Your task to perform on an android device: What is the news today? Image 0: 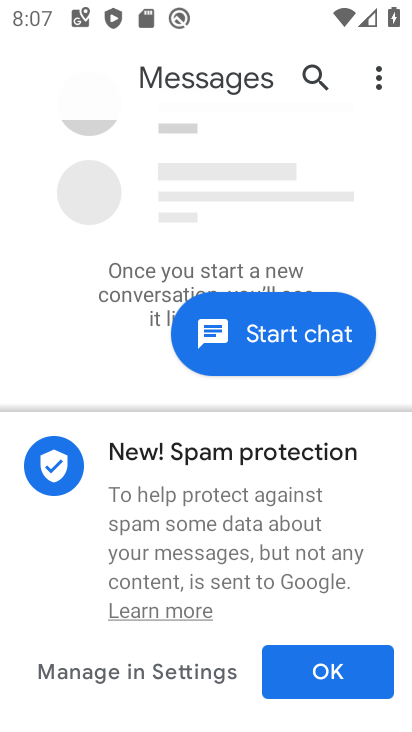
Step 0: press home button
Your task to perform on an android device: What is the news today? Image 1: 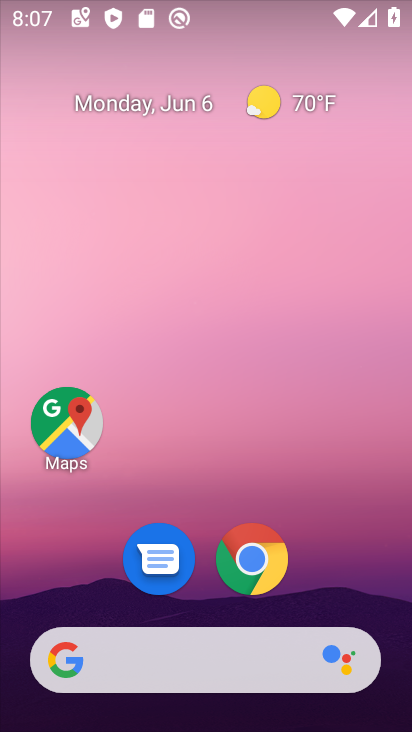
Step 1: task complete